Your task to perform on an android device: Go to Amazon Image 0: 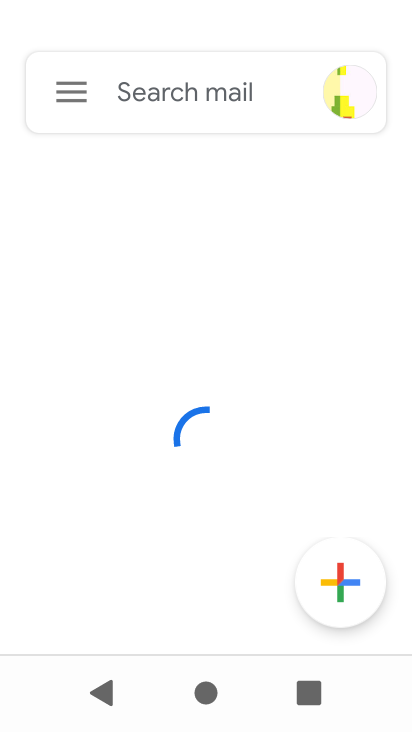
Step 0: press home button
Your task to perform on an android device: Go to Amazon Image 1: 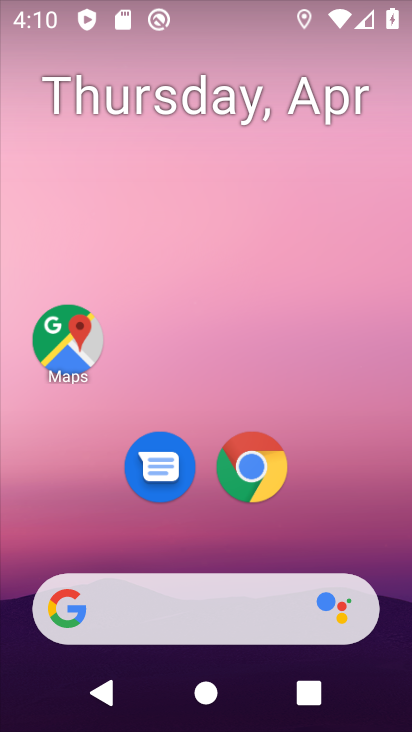
Step 1: click (247, 476)
Your task to perform on an android device: Go to Amazon Image 2: 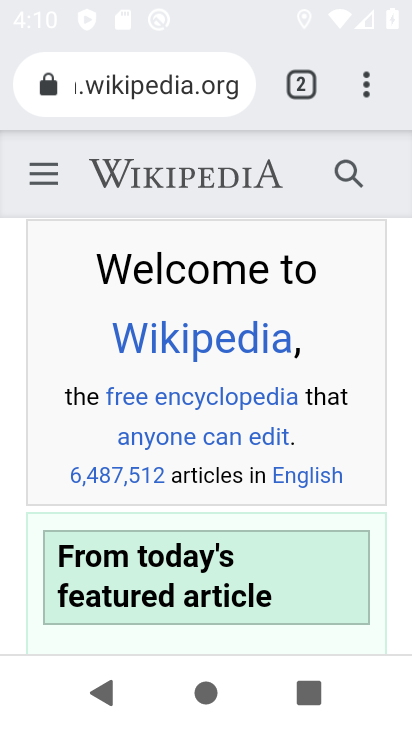
Step 2: click (218, 84)
Your task to perform on an android device: Go to Amazon Image 3: 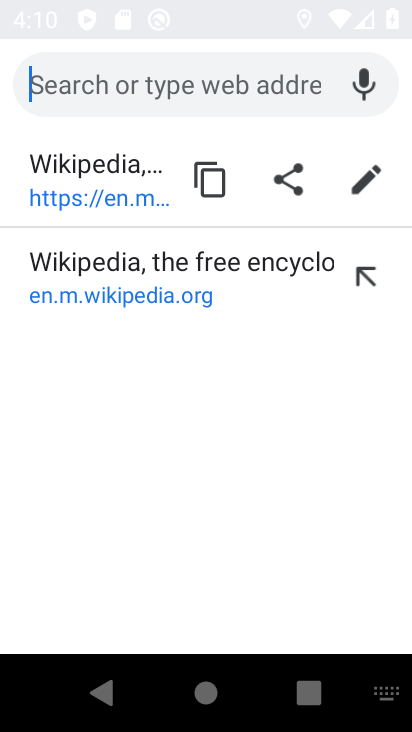
Step 3: type "amazon"
Your task to perform on an android device: Go to Amazon Image 4: 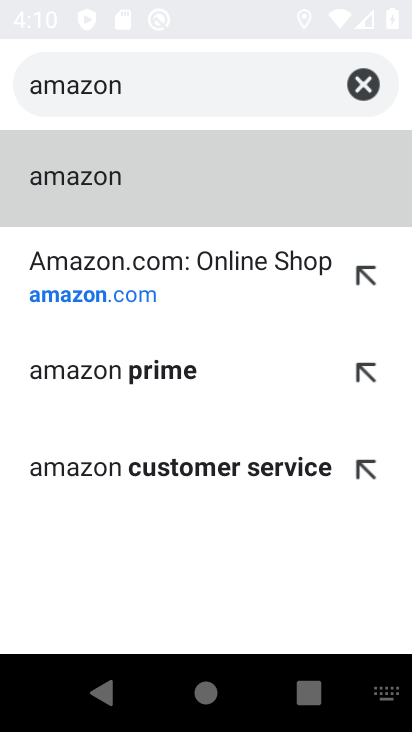
Step 4: click (124, 175)
Your task to perform on an android device: Go to Amazon Image 5: 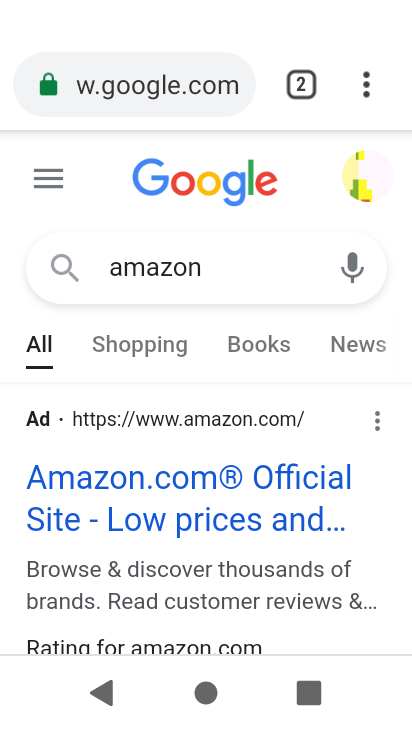
Step 5: task complete